Your task to perform on an android device: Go to wifi settings Image 0: 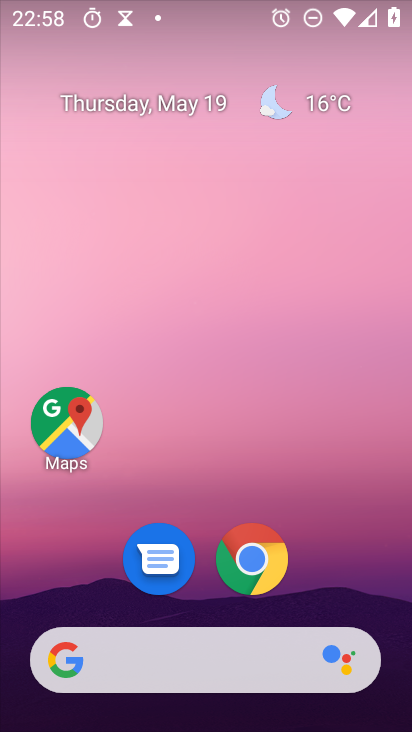
Step 0: drag from (224, 713) to (221, 254)
Your task to perform on an android device: Go to wifi settings Image 1: 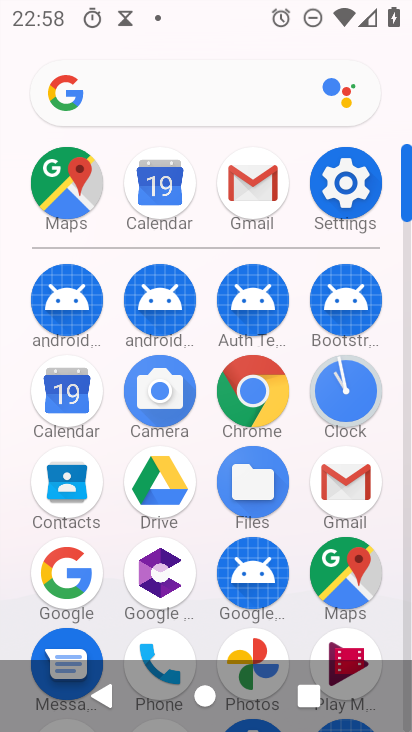
Step 1: click (346, 183)
Your task to perform on an android device: Go to wifi settings Image 2: 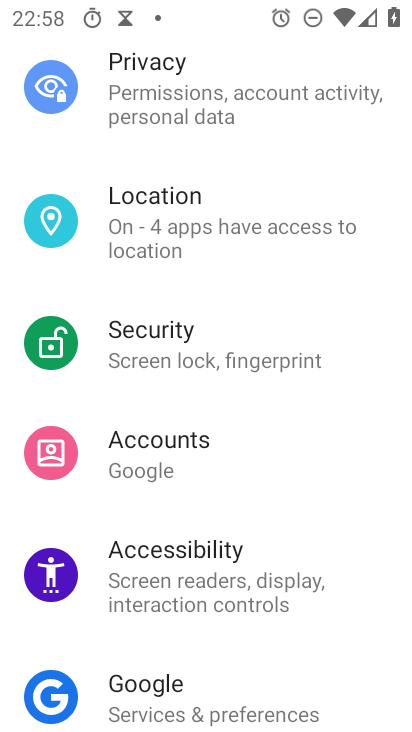
Step 2: drag from (219, 147) to (218, 548)
Your task to perform on an android device: Go to wifi settings Image 3: 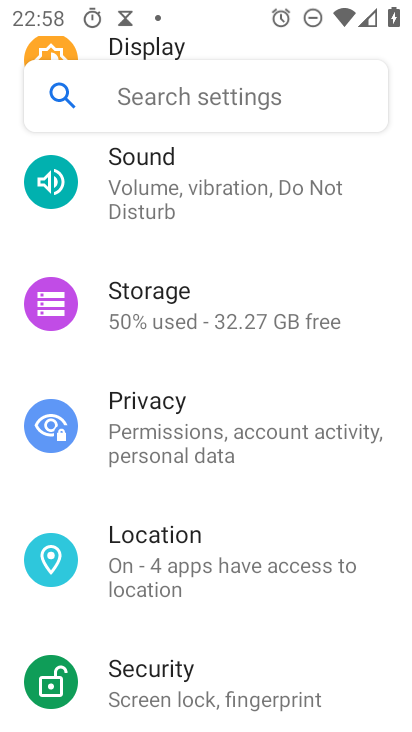
Step 3: drag from (203, 155) to (197, 553)
Your task to perform on an android device: Go to wifi settings Image 4: 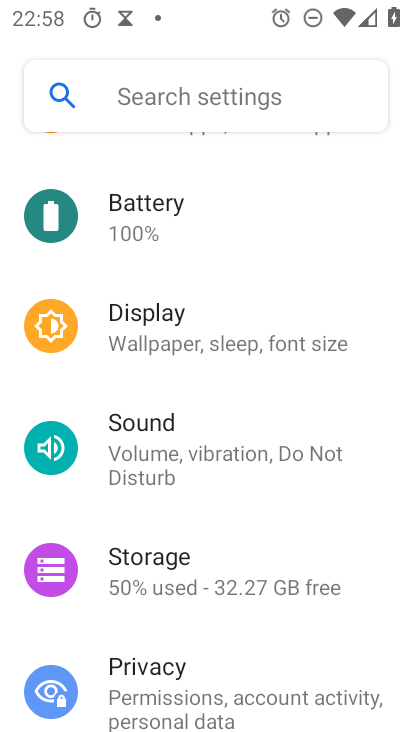
Step 4: drag from (211, 205) to (213, 608)
Your task to perform on an android device: Go to wifi settings Image 5: 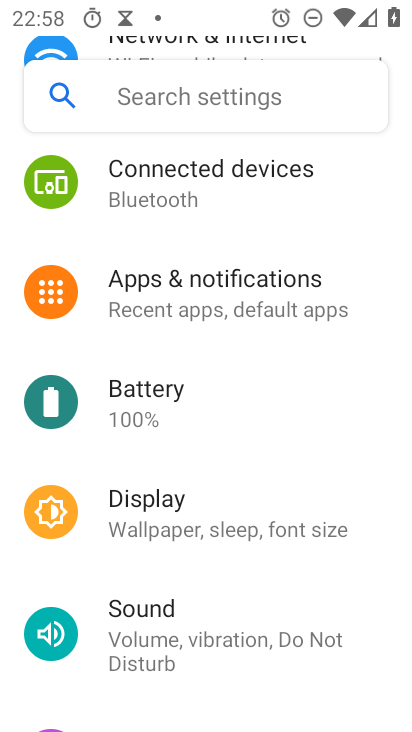
Step 5: drag from (207, 185) to (208, 545)
Your task to perform on an android device: Go to wifi settings Image 6: 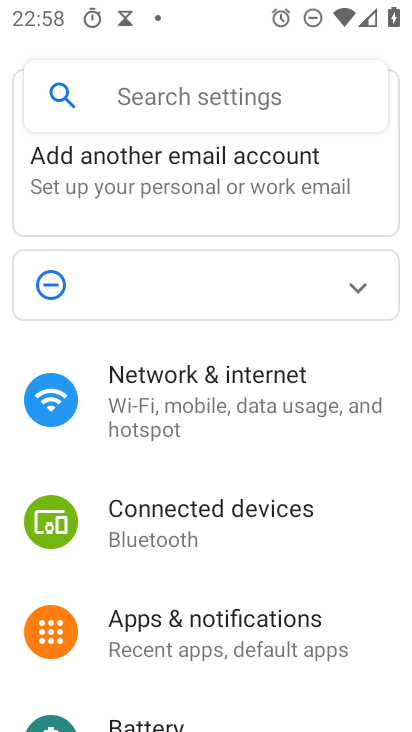
Step 6: click (195, 380)
Your task to perform on an android device: Go to wifi settings Image 7: 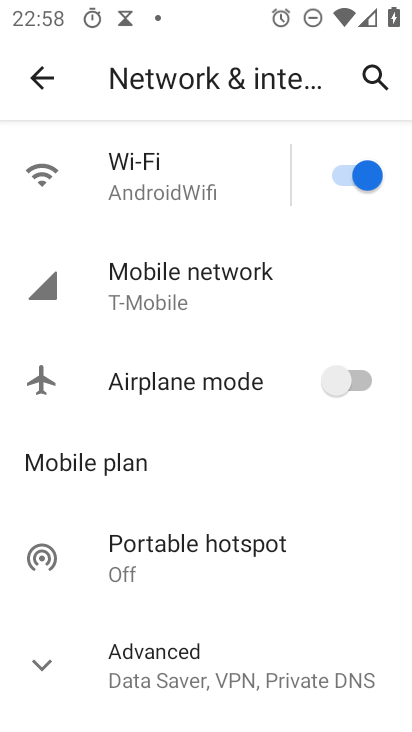
Step 7: click (143, 182)
Your task to perform on an android device: Go to wifi settings Image 8: 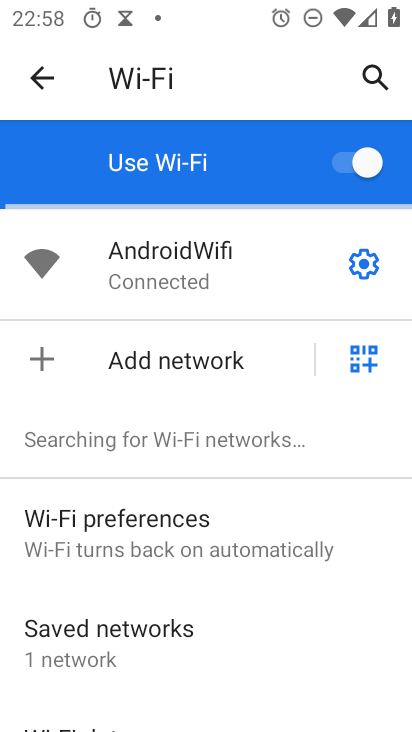
Step 8: task complete